Your task to perform on an android device: Open calendar and show me the third week of next month Image 0: 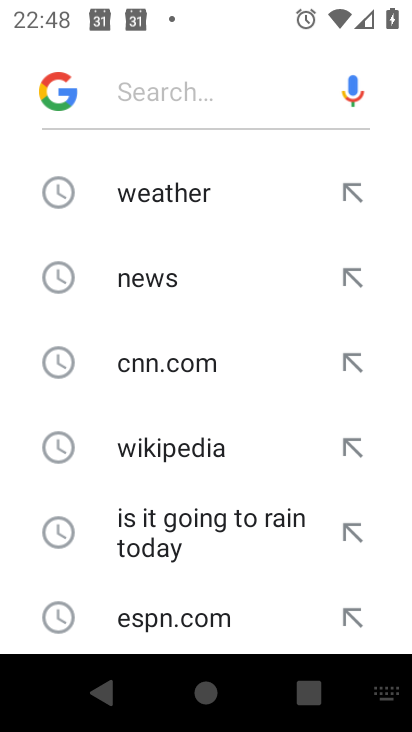
Step 0: press home button
Your task to perform on an android device: Open calendar and show me the third week of next month Image 1: 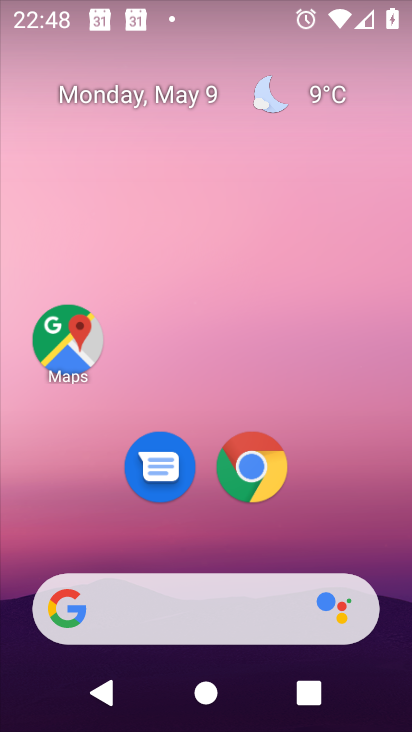
Step 1: drag from (384, 583) to (390, 0)
Your task to perform on an android device: Open calendar and show me the third week of next month Image 2: 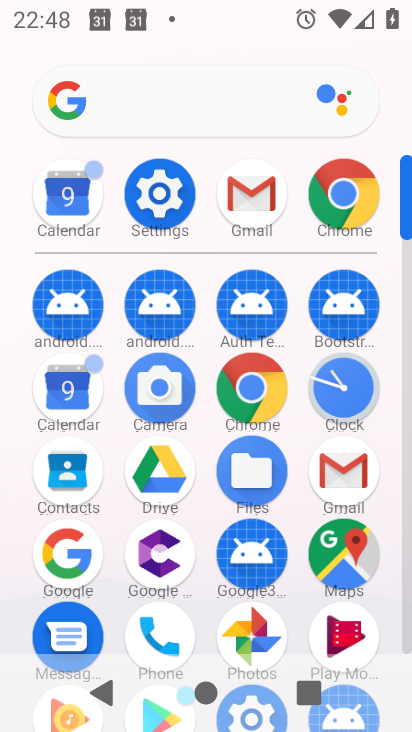
Step 2: click (60, 212)
Your task to perform on an android device: Open calendar and show me the third week of next month Image 3: 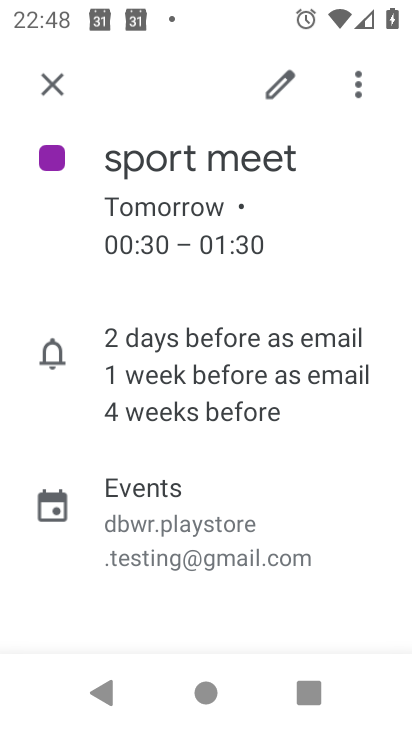
Step 3: click (43, 84)
Your task to perform on an android device: Open calendar and show me the third week of next month Image 4: 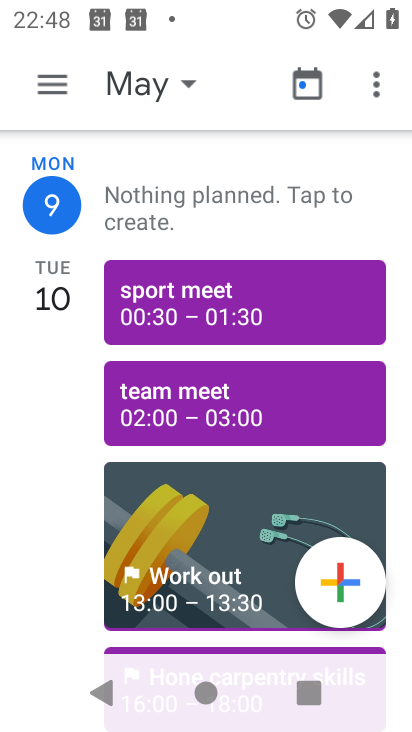
Step 4: click (188, 84)
Your task to perform on an android device: Open calendar and show me the third week of next month Image 5: 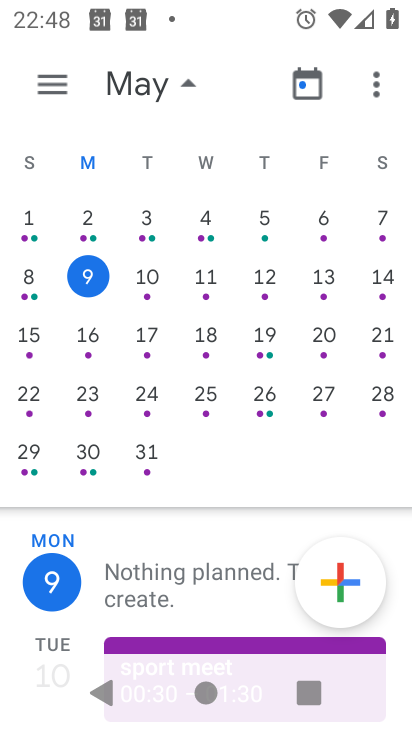
Step 5: drag from (365, 201) to (13, 641)
Your task to perform on an android device: Open calendar and show me the third week of next month Image 6: 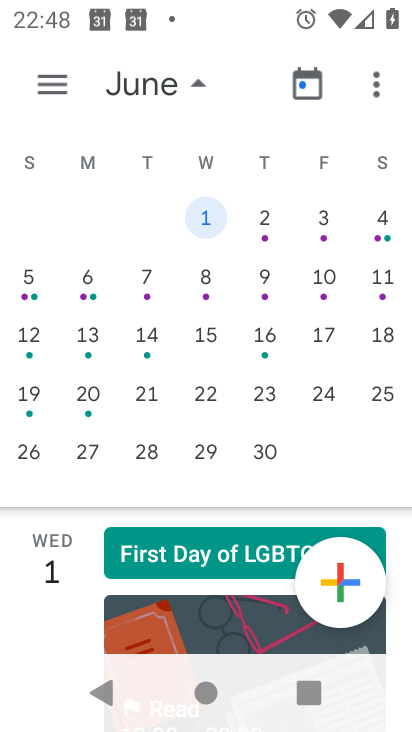
Step 6: click (38, 87)
Your task to perform on an android device: Open calendar and show me the third week of next month Image 7: 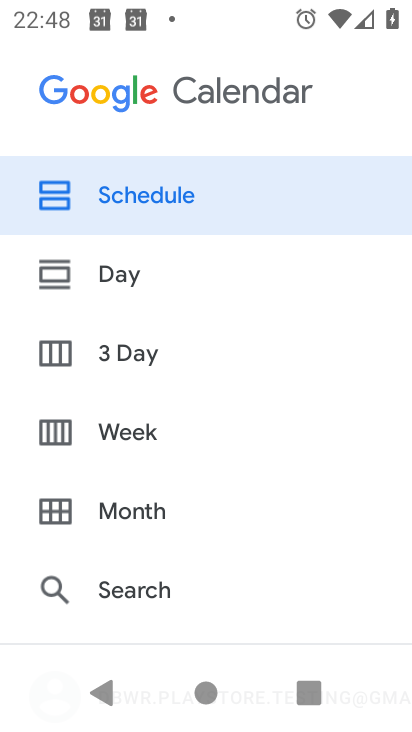
Step 7: click (104, 437)
Your task to perform on an android device: Open calendar and show me the third week of next month Image 8: 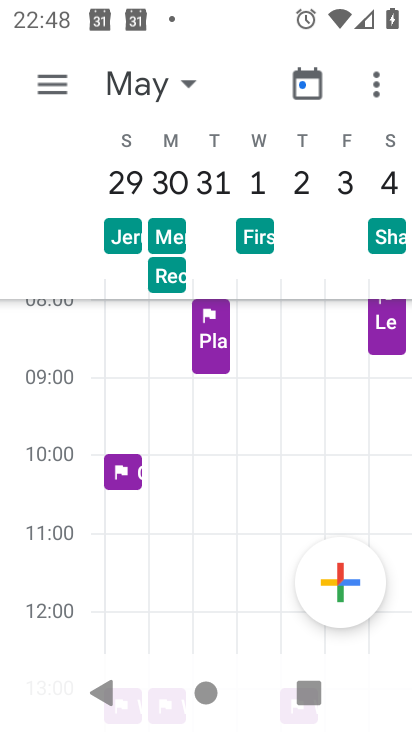
Step 8: task complete